Your task to perform on an android device: delete location history Image 0: 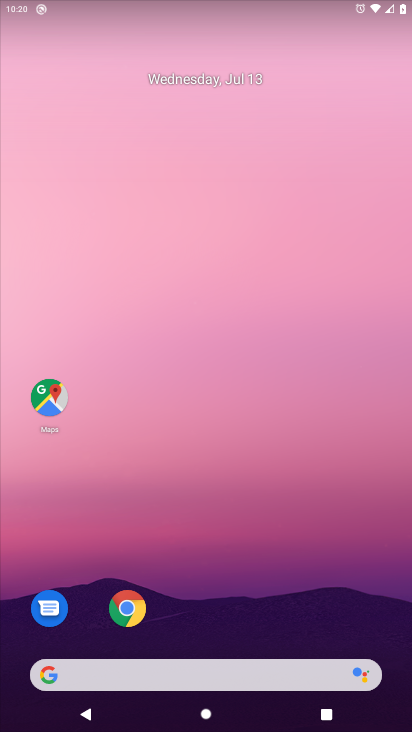
Step 0: drag from (81, 628) to (189, 249)
Your task to perform on an android device: delete location history Image 1: 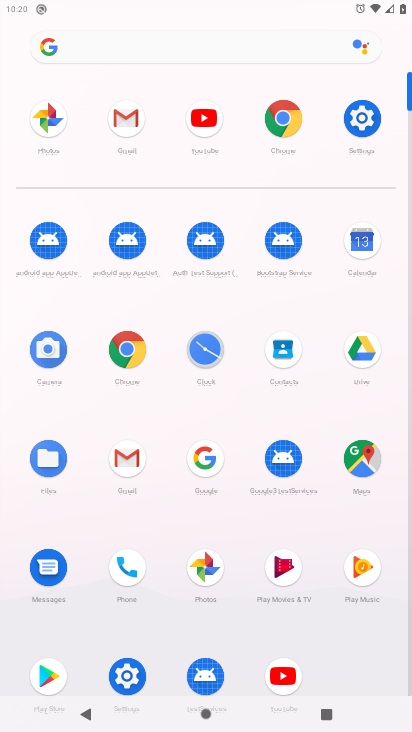
Step 1: click (120, 663)
Your task to perform on an android device: delete location history Image 2: 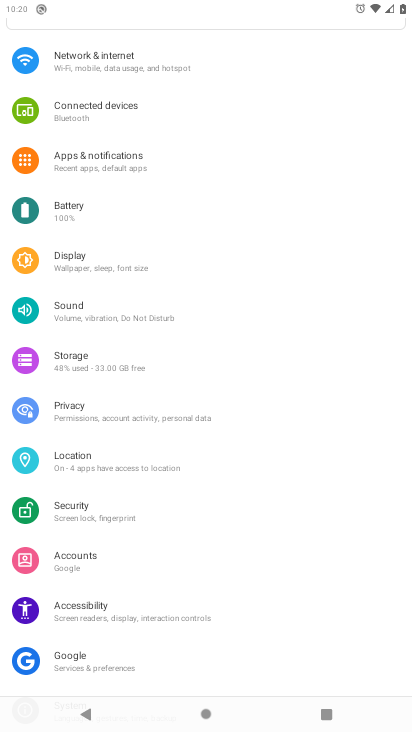
Step 2: click (86, 444)
Your task to perform on an android device: delete location history Image 3: 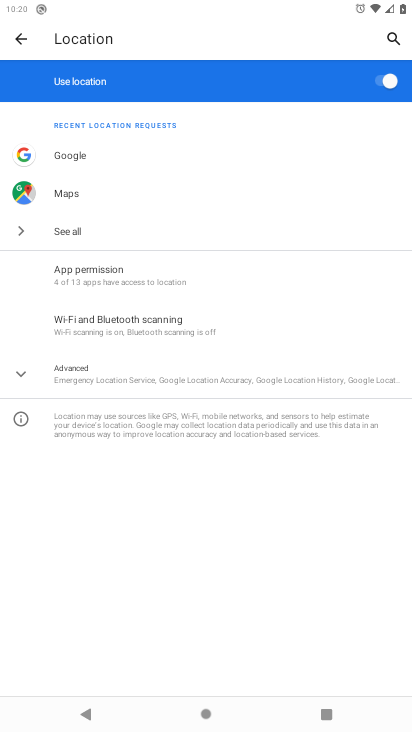
Step 3: click (86, 374)
Your task to perform on an android device: delete location history Image 4: 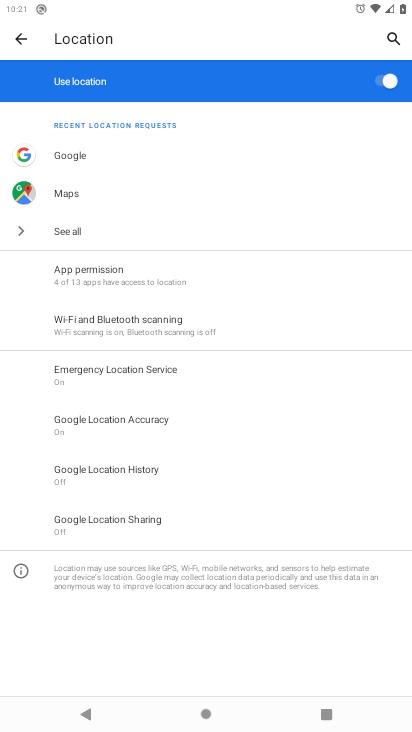
Step 4: click (91, 472)
Your task to perform on an android device: delete location history Image 5: 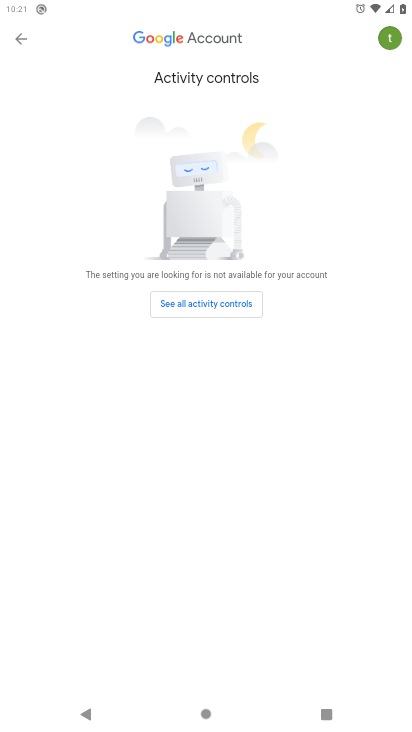
Step 5: task complete